Your task to perform on an android device: Turn on the flashlight Image 0: 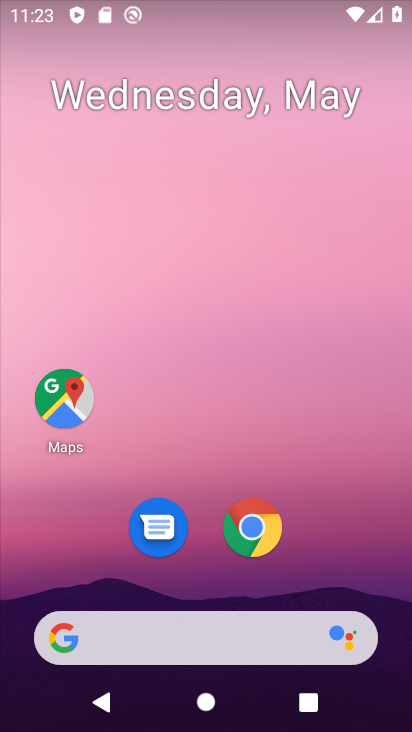
Step 0: drag from (309, 4) to (221, 730)
Your task to perform on an android device: Turn on the flashlight Image 1: 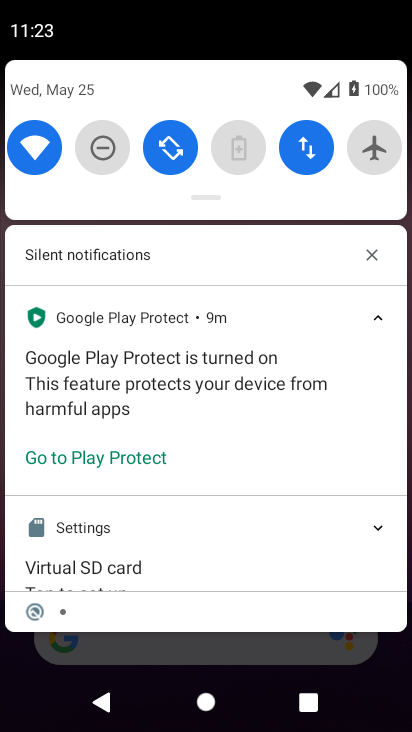
Step 1: task complete